Your task to perform on an android device: Open settings Image 0: 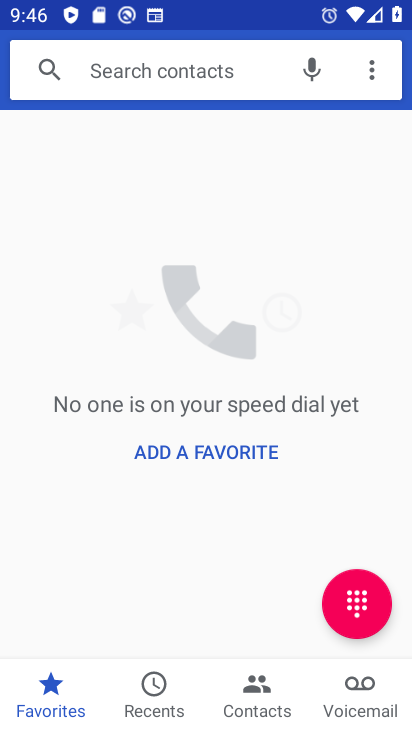
Step 0: press home button
Your task to perform on an android device: Open settings Image 1: 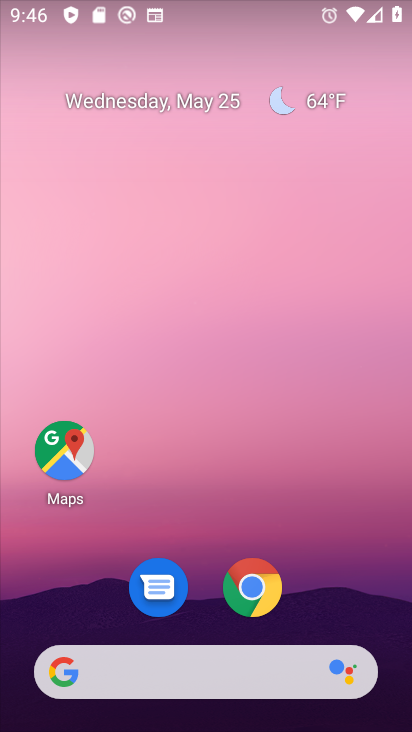
Step 1: drag from (58, 615) to (179, 167)
Your task to perform on an android device: Open settings Image 2: 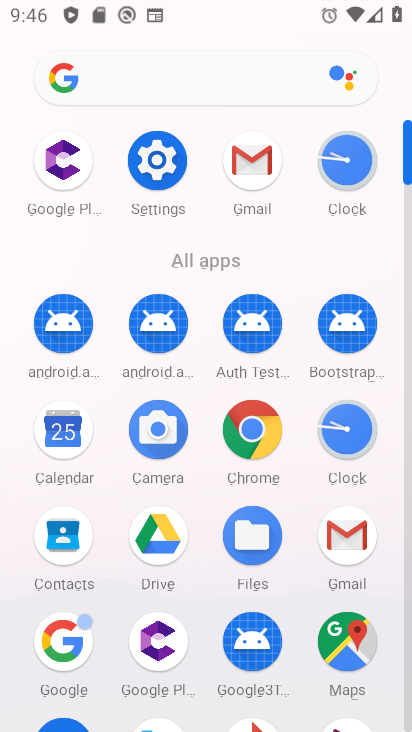
Step 2: drag from (174, 695) to (253, 436)
Your task to perform on an android device: Open settings Image 3: 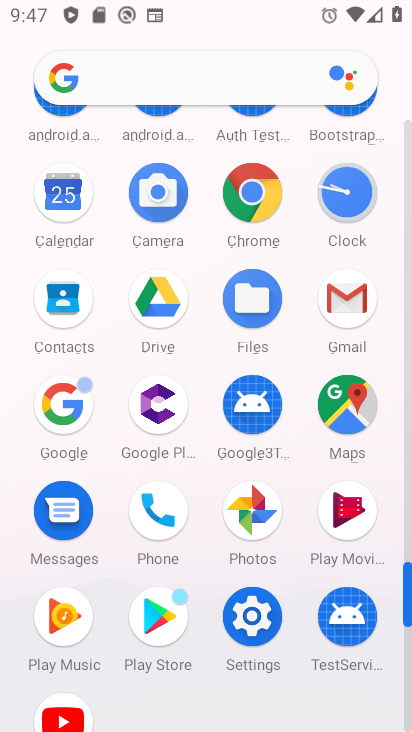
Step 3: click (261, 616)
Your task to perform on an android device: Open settings Image 4: 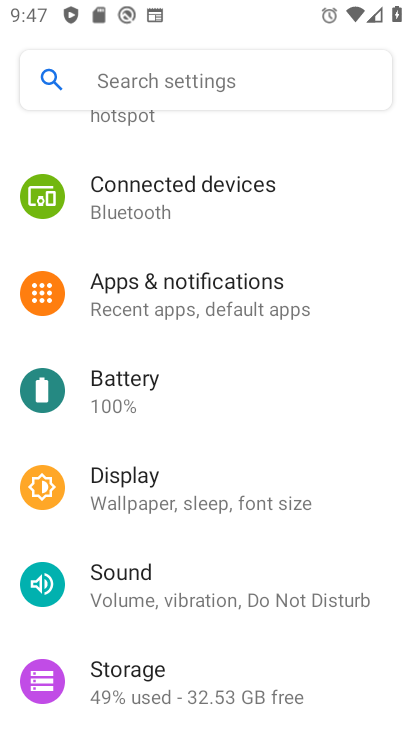
Step 4: task complete